Your task to perform on an android device: toggle pop-ups in chrome Image 0: 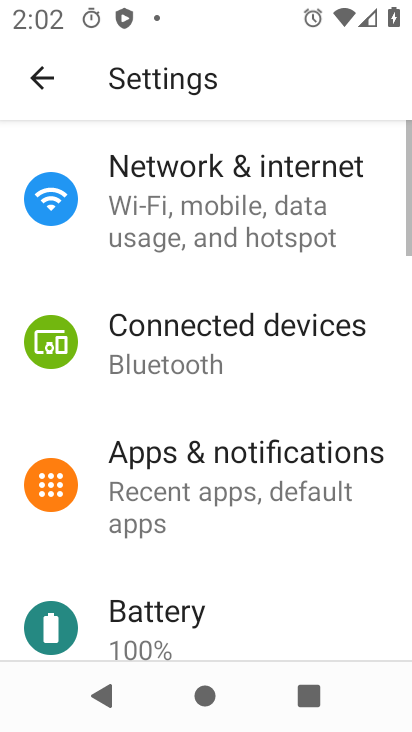
Step 0: press home button
Your task to perform on an android device: toggle pop-ups in chrome Image 1: 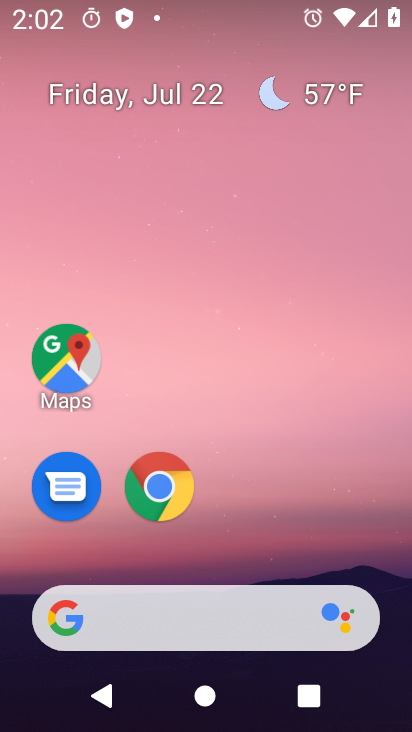
Step 1: drag from (380, 552) to (382, 171)
Your task to perform on an android device: toggle pop-ups in chrome Image 2: 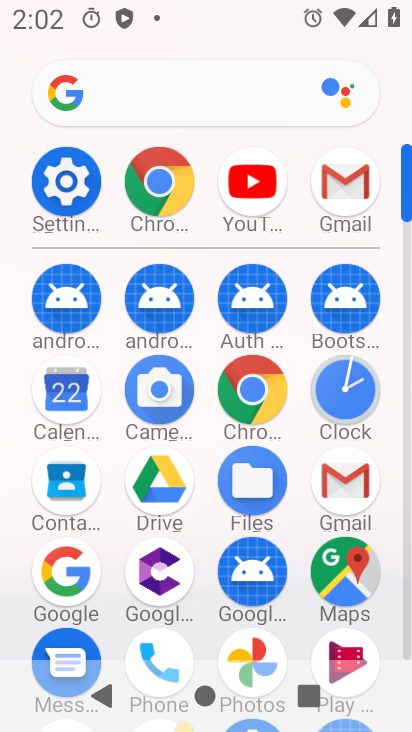
Step 2: click (170, 196)
Your task to perform on an android device: toggle pop-ups in chrome Image 3: 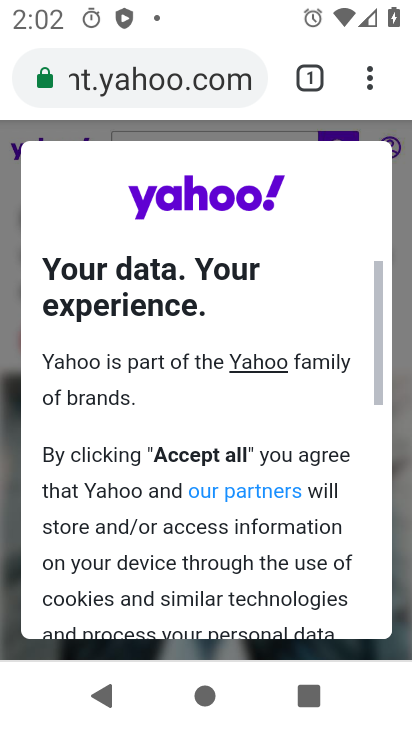
Step 3: click (366, 85)
Your task to perform on an android device: toggle pop-ups in chrome Image 4: 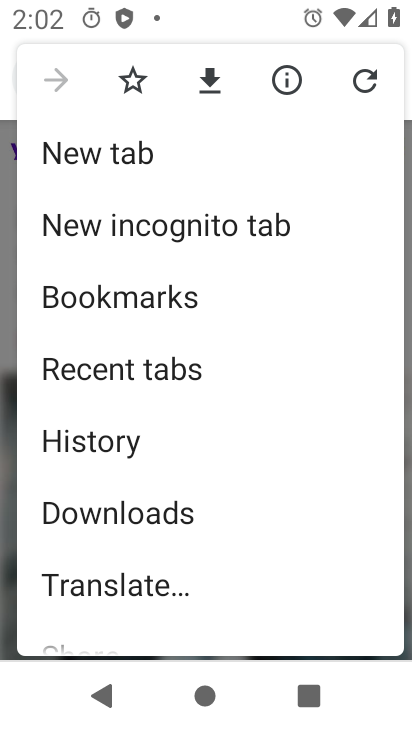
Step 4: drag from (290, 457) to (289, 350)
Your task to perform on an android device: toggle pop-ups in chrome Image 5: 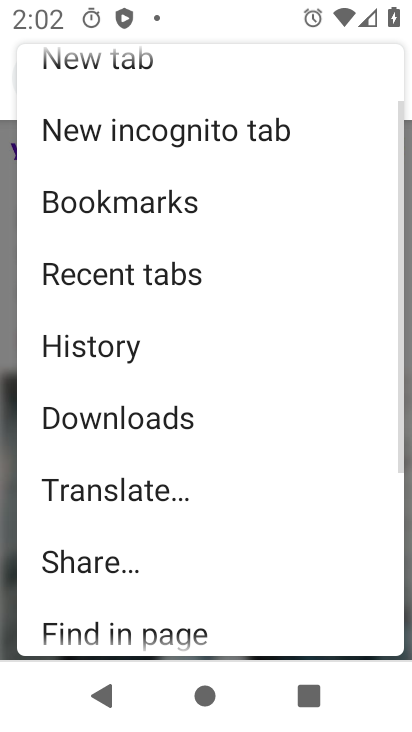
Step 5: drag from (294, 409) to (293, 335)
Your task to perform on an android device: toggle pop-ups in chrome Image 6: 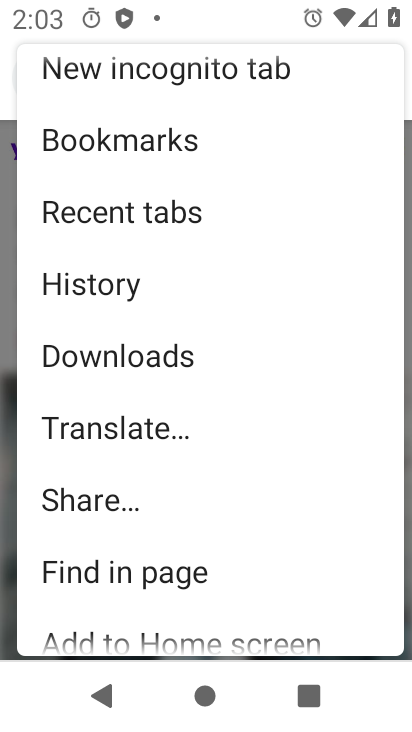
Step 6: drag from (311, 400) to (314, 313)
Your task to perform on an android device: toggle pop-ups in chrome Image 7: 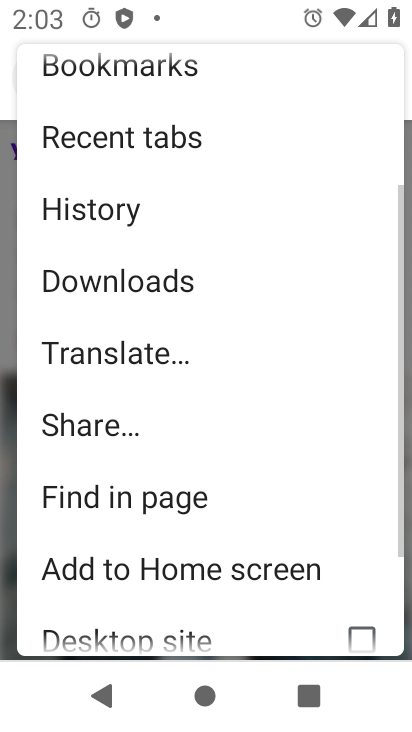
Step 7: drag from (308, 433) to (307, 336)
Your task to perform on an android device: toggle pop-ups in chrome Image 8: 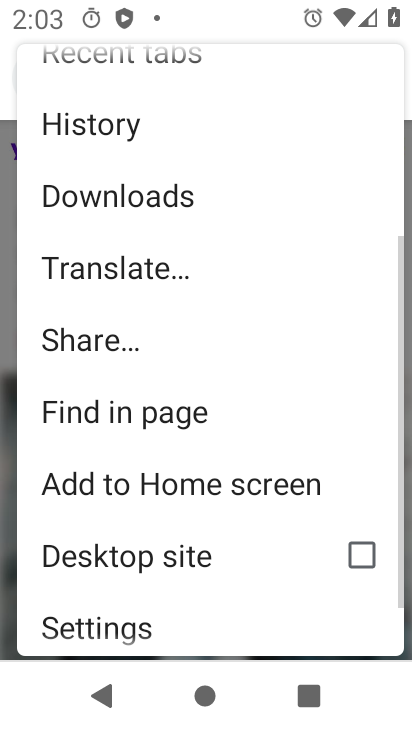
Step 8: drag from (296, 433) to (296, 355)
Your task to perform on an android device: toggle pop-ups in chrome Image 9: 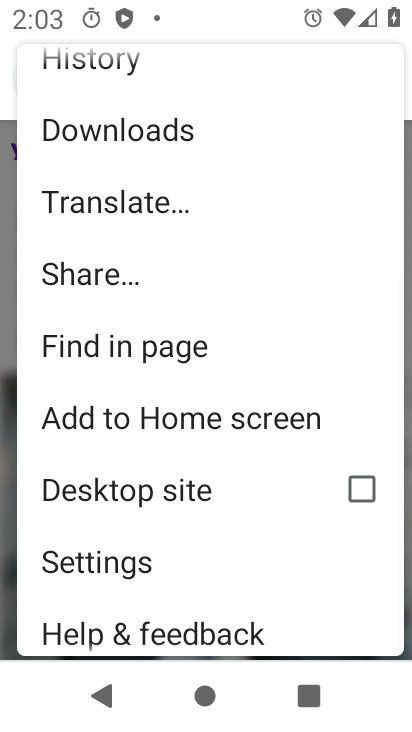
Step 9: drag from (276, 489) to (274, 354)
Your task to perform on an android device: toggle pop-ups in chrome Image 10: 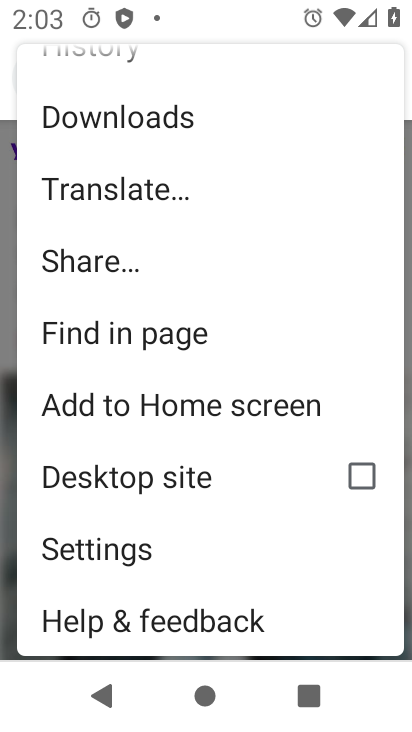
Step 10: click (241, 547)
Your task to perform on an android device: toggle pop-ups in chrome Image 11: 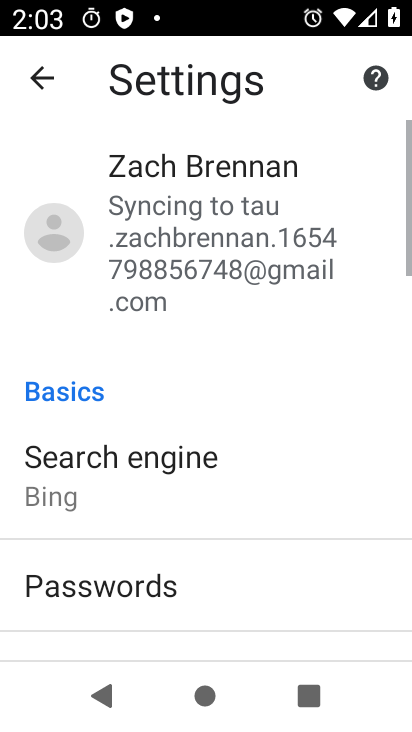
Step 11: drag from (241, 547) to (244, 468)
Your task to perform on an android device: toggle pop-ups in chrome Image 12: 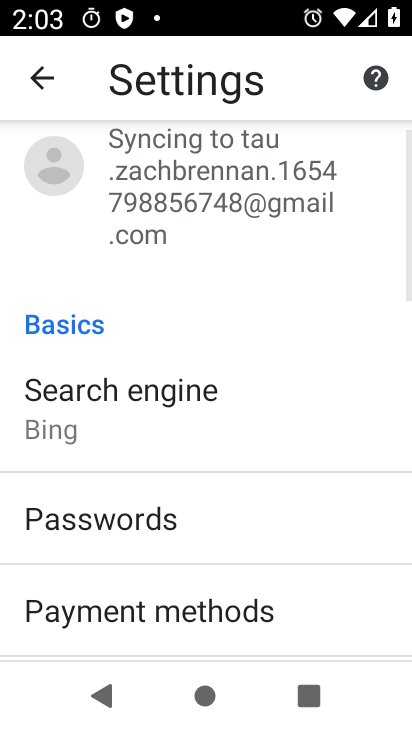
Step 12: drag from (265, 549) to (275, 476)
Your task to perform on an android device: toggle pop-ups in chrome Image 13: 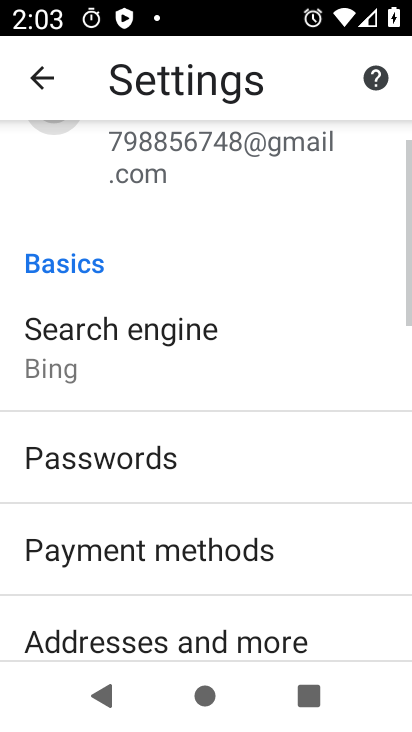
Step 13: drag from (306, 575) to (316, 500)
Your task to perform on an android device: toggle pop-ups in chrome Image 14: 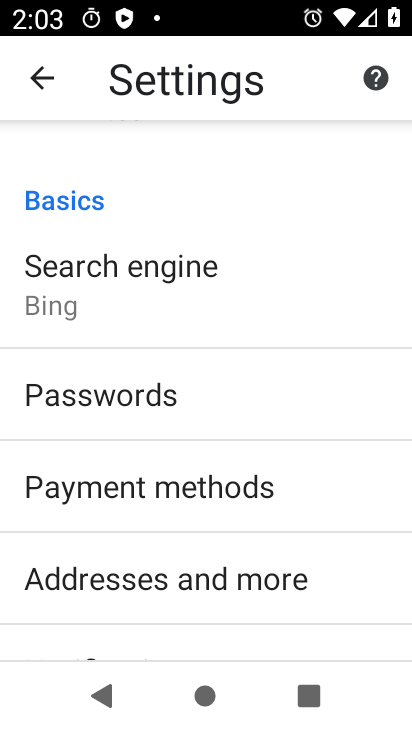
Step 14: drag from (317, 591) to (323, 500)
Your task to perform on an android device: toggle pop-ups in chrome Image 15: 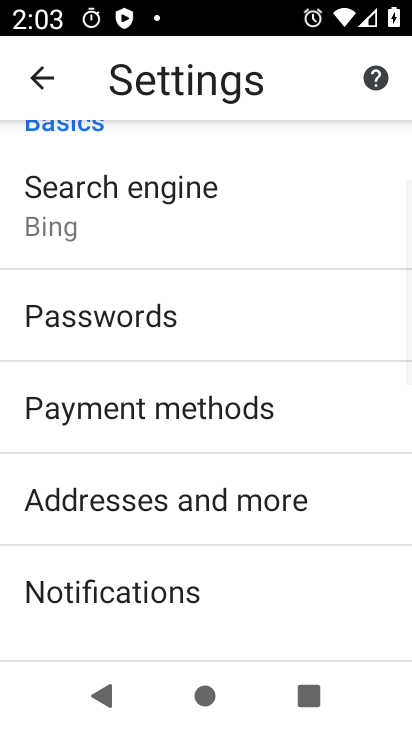
Step 15: drag from (323, 568) to (323, 476)
Your task to perform on an android device: toggle pop-ups in chrome Image 16: 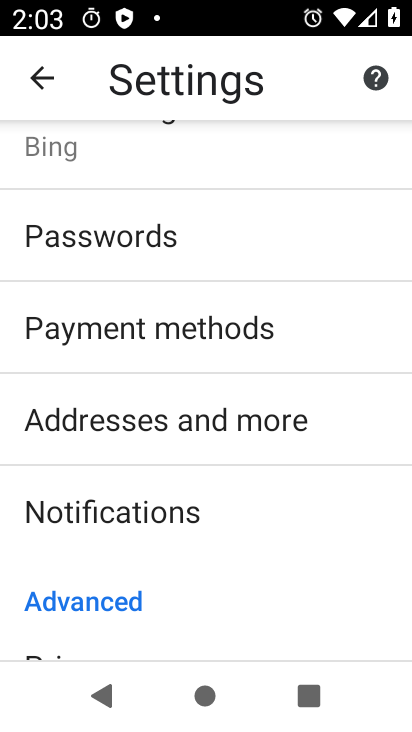
Step 16: drag from (314, 544) to (315, 475)
Your task to perform on an android device: toggle pop-ups in chrome Image 17: 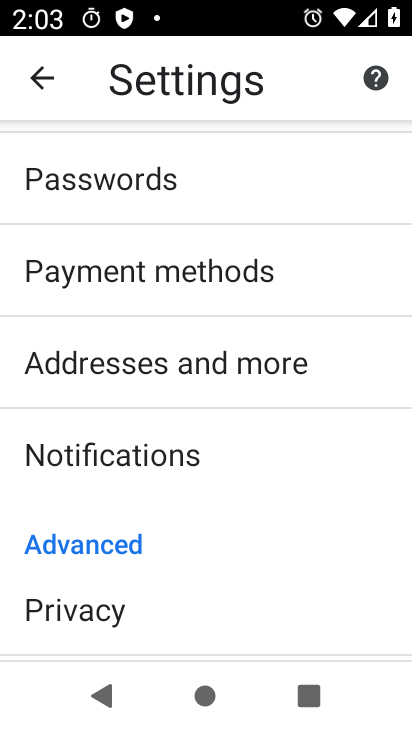
Step 17: drag from (307, 556) to (303, 453)
Your task to perform on an android device: toggle pop-ups in chrome Image 18: 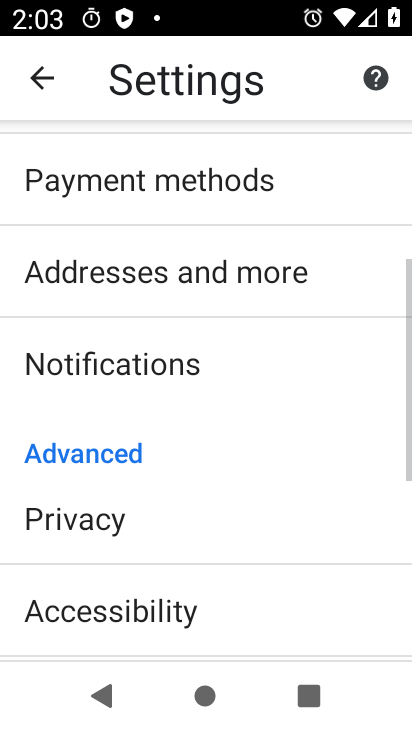
Step 18: drag from (287, 574) to (291, 443)
Your task to perform on an android device: toggle pop-ups in chrome Image 19: 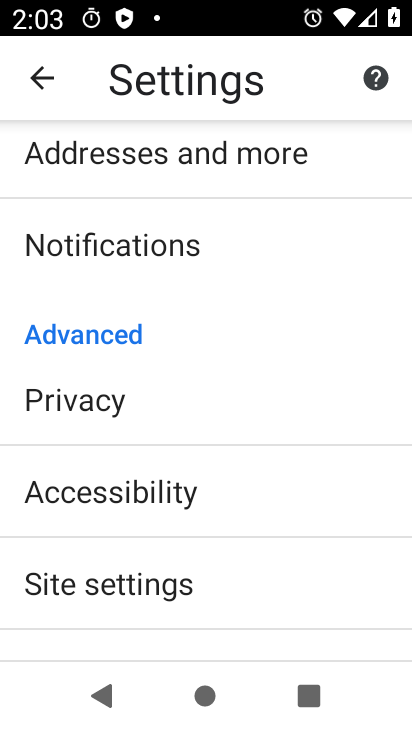
Step 19: click (292, 584)
Your task to perform on an android device: toggle pop-ups in chrome Image 20: 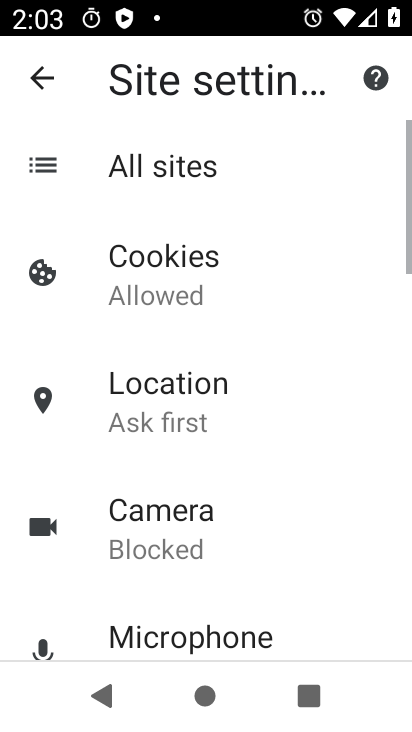
Step 20: drag from (292, 584) to (298, 480)
Your task to perform on an android device: toggle pop-ups in chrome Image 21: 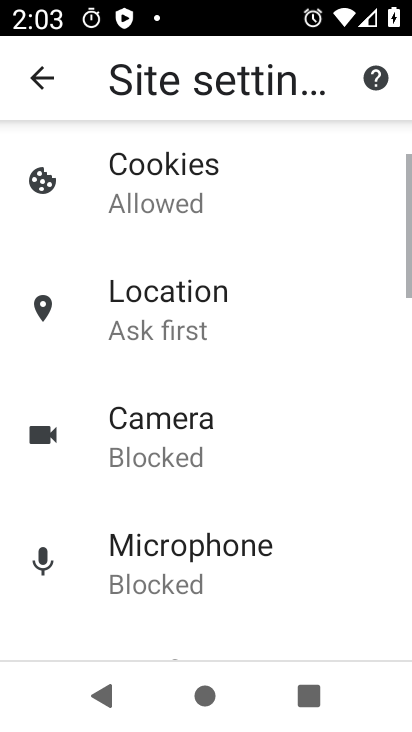
Step 21: drag from (310, 586) to (308, 501)
Your task to perform on an android device: toggle pop-ups in chrome Image 22: 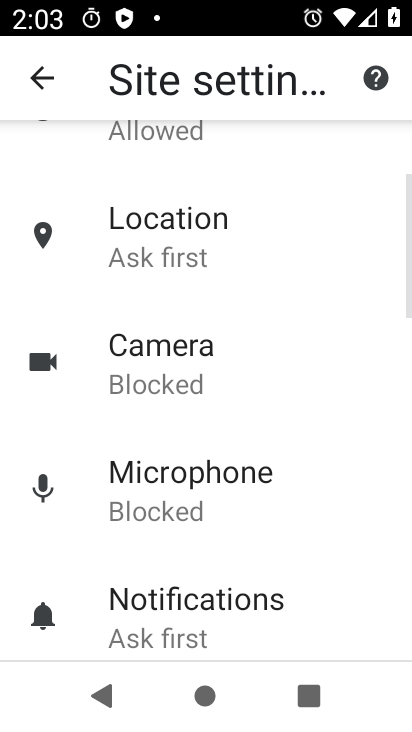
Step 22: drag from (329, 599) to (334, 502)
Your task to perform on an android device: toggle pop-ups in chrome Image 23: 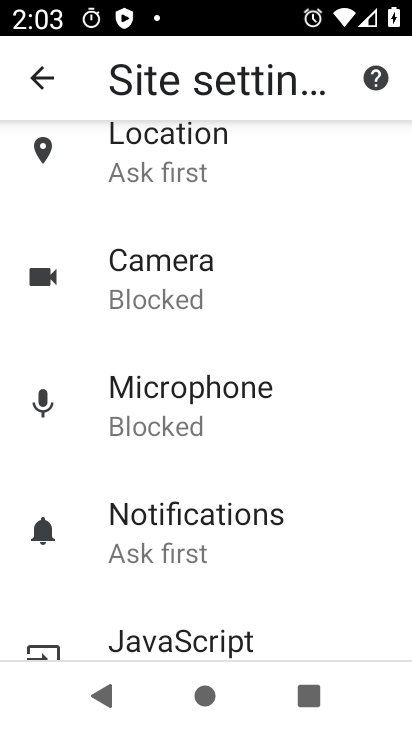
Step 23: drag from (321, 604) to (329, 496)
Your task to perform on an android device: toggle pop-ups in chrome Image 24: 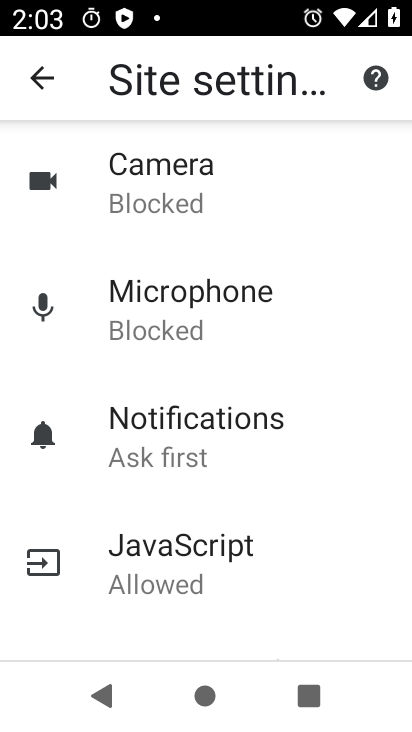
Step 24: drag from (324, 576) to (324, 468)
Your task to perform on an android device: toggle pop-ups in chrome Image 25: 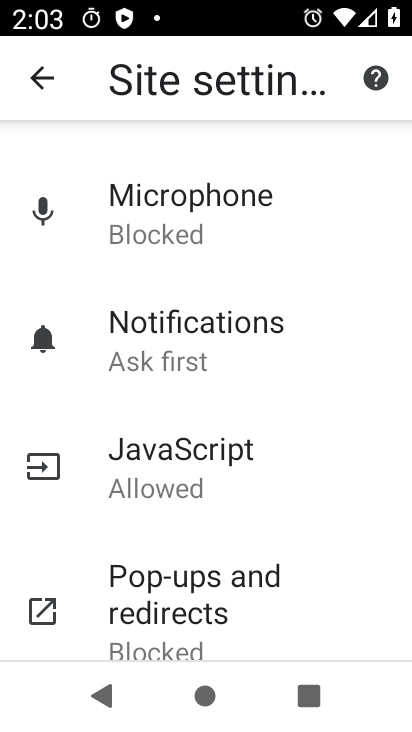
Step 25: drag from (325, 612) to (321, 503)
Your task to perform on an android device: toggle pop-ups in chrome Image 26: 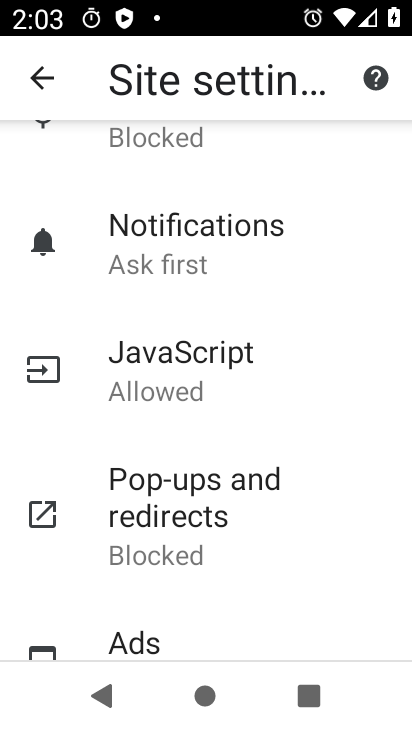
Step 26: click (322, 501)
Your task to perform on an android device: toggle pop-ups in chrome Image 27: 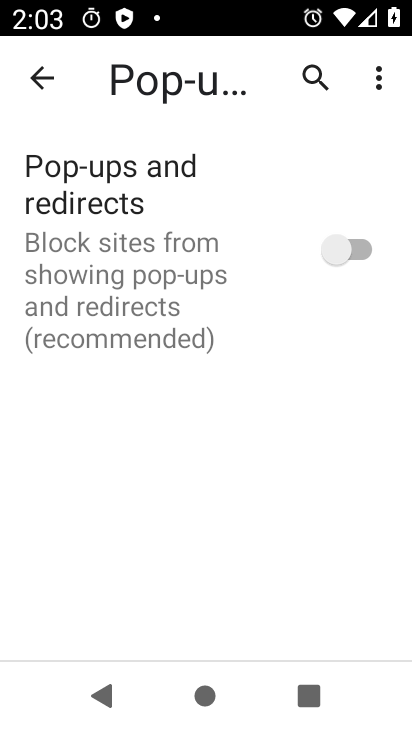
Step 27: click (352, 248)
Your task to perform on an android device: toggle pop-ups in chrome Image 28: 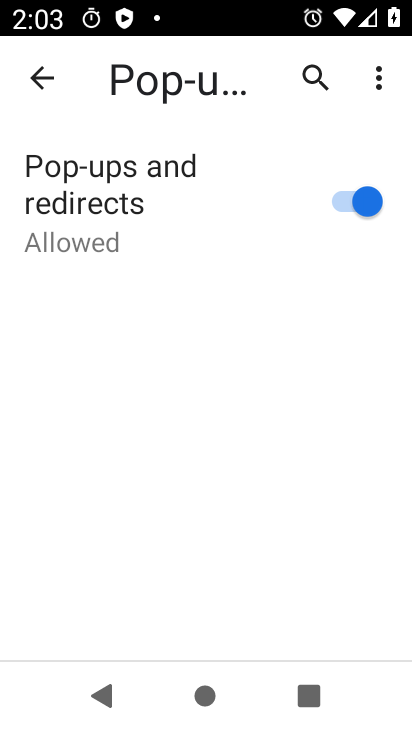
Step 28: task complete